Your task to perform on an android device: What's the weather going to be this weekend? Image 0: 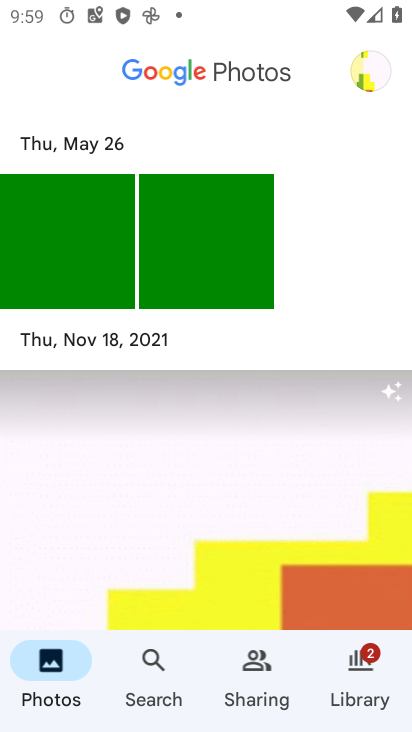
Step 0: press home button
Your task to perform on an android device: What's the weather going to be this weekend? Image 1: 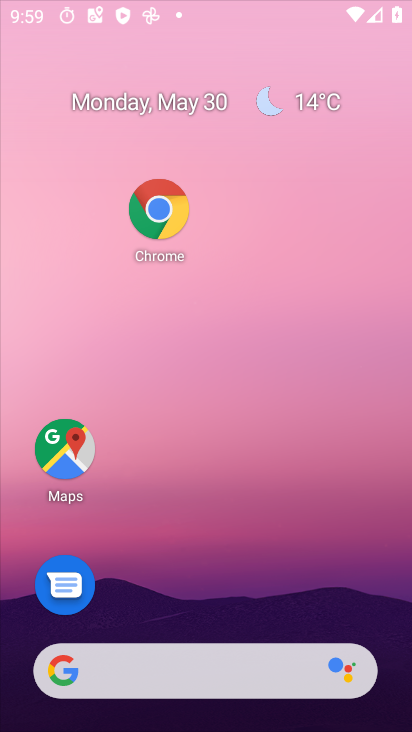
Step 1: drag from (191, 586) to (165, 27)
Your task to perform on an android device: What's the weather going to be this weekend? Image 2: 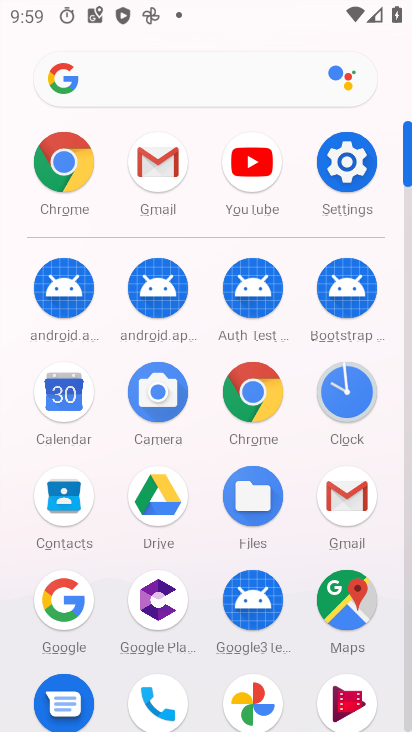
Step 2: click (164, 90)
Your task to perform on an android device: What's the weather going to be this weekend? Image 3: 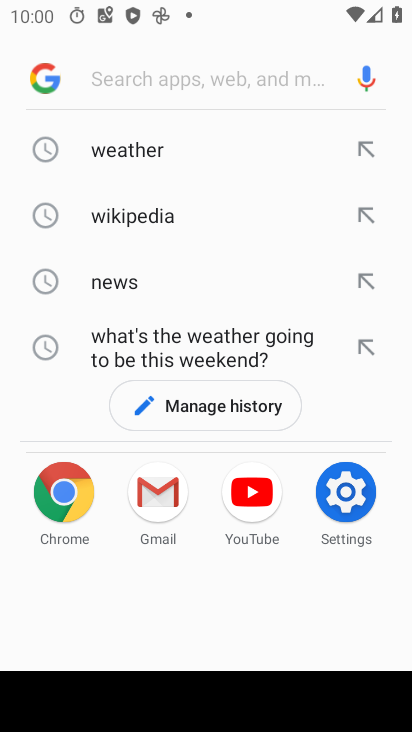
Step 3: click (133, 73)
Your task to perform on an android device: What's the weather going to be this weekend? Image 4: 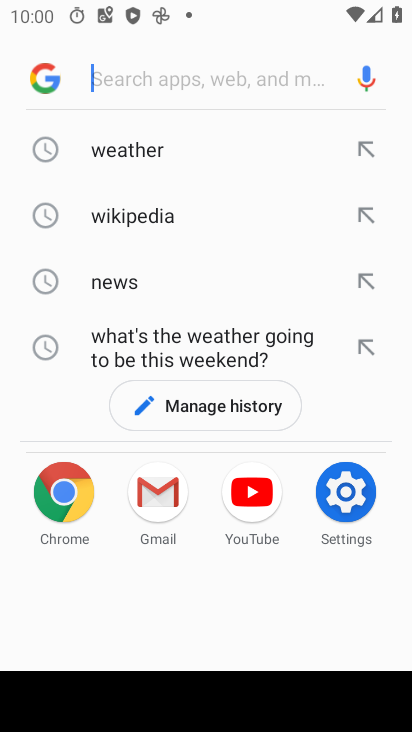
Step 4: type "weather weekend"
Your task to perform on an android device: What's the weather going to be this weekend? Image 5: 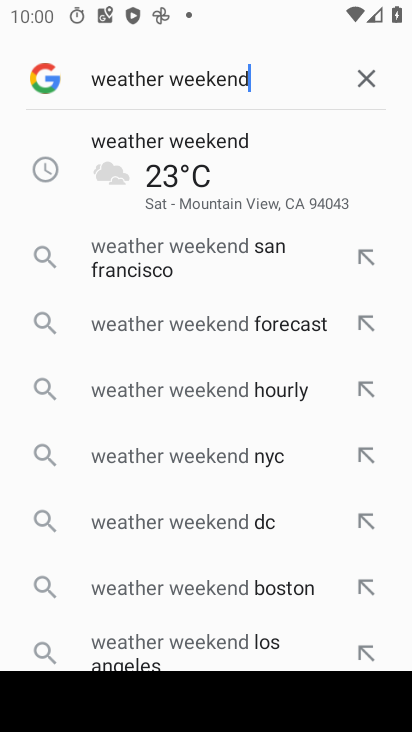
Step 5: click (164, 166)
Your task to perform on an android device: What's the weather going to be this weekend? Image 6: 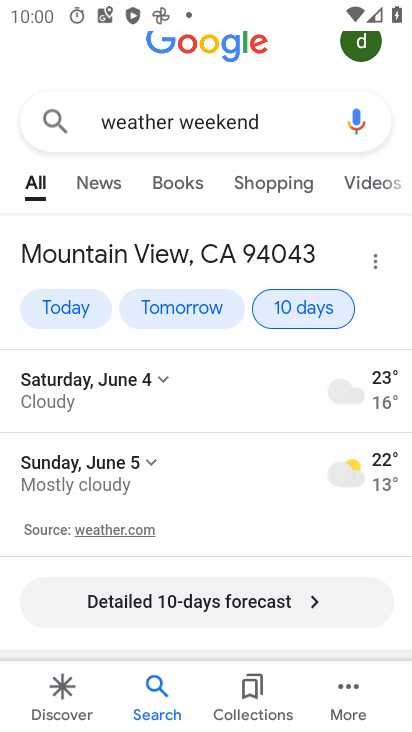
Step 6: task complete